Your task to perform on an android device: turn off improve location accuracy Image 0: 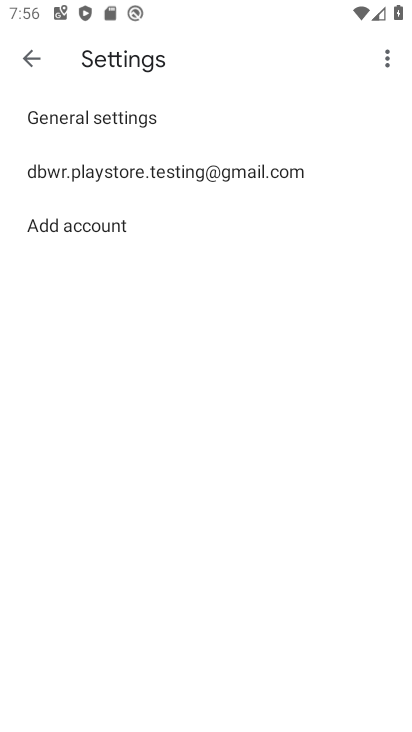
Step 0: press home button
Your task to perform on an android device: turn off improve location accuracy Image 1: 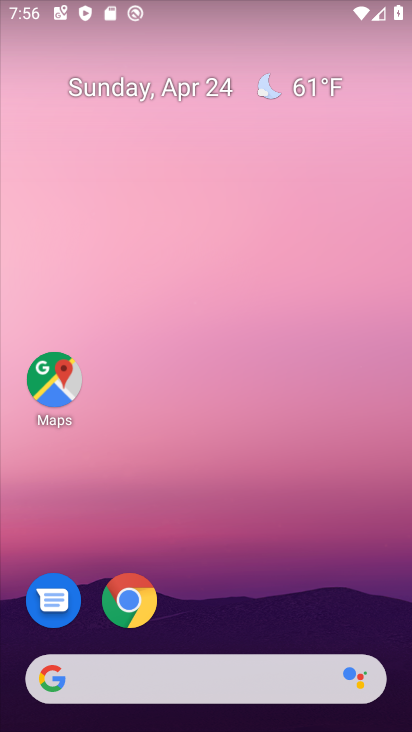
Step 1: drag from (215, 729) to (174, 177)
Your task to perform on an android device: turn off improve location accuracy Image 2: 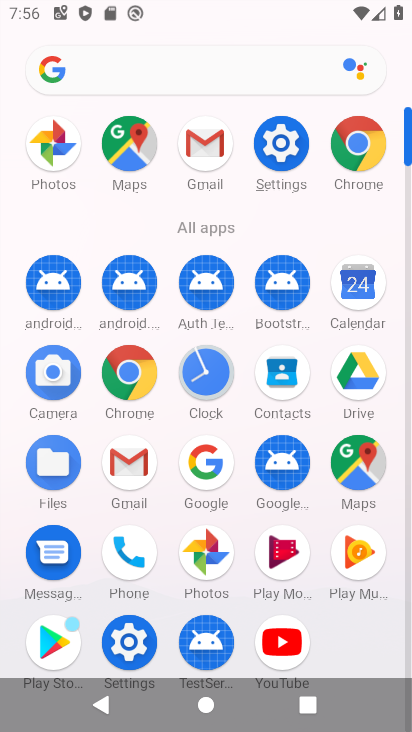
Step 2: click (283, 143)
Your task to perform on an android device: turn off improve location accuracy Image 3: 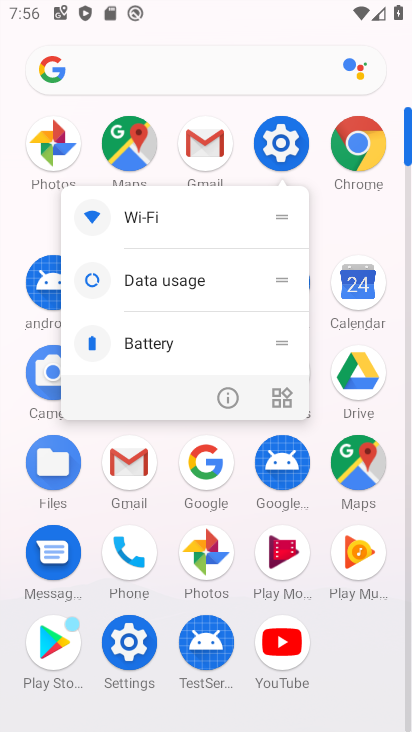
Step 3: click (275, 155)
Your task to perform on an android device: turn off improve location accuracy Image 4: 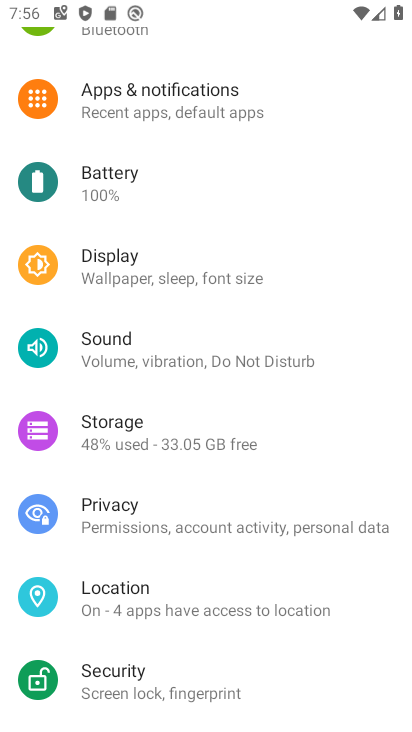
Step 4: click (112, 594)
Your task to perform on an android device: turn off improve location accuracy Image 5: 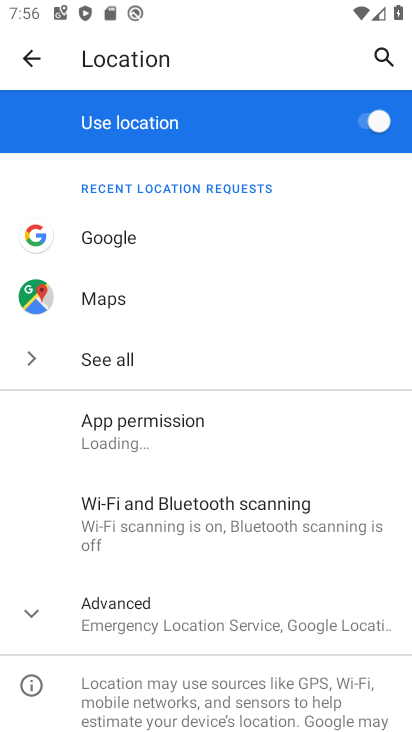
Step 5: click (204, 623)
Your task to perform on an android device: turn off improve location accuracy Image 6: 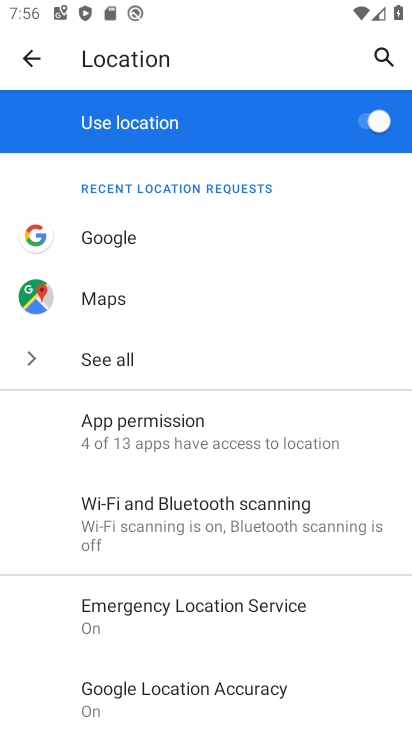
Step 6: drag from (203, 712) to (202, 489)
Your task to perform on an android device: turn off improve location accuracy Image 7: 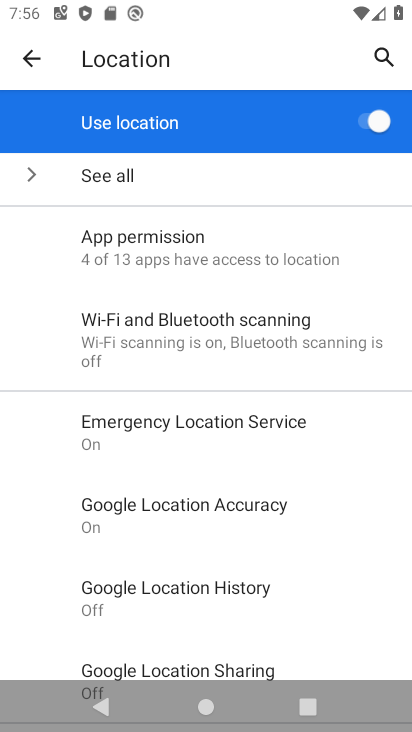
Step 7: click (158, 502)
Your task to perform on an android device: turn off improve location accuracy Image 8: 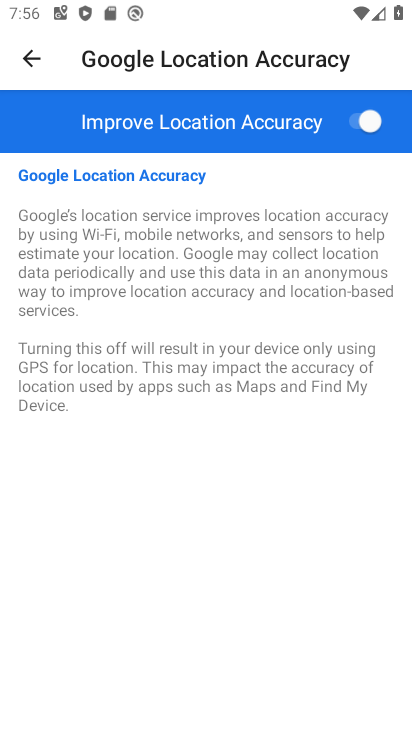
Step 8: click (351, 122)
Your task to perform on an android device: turn off improve location accuracy Image 9: 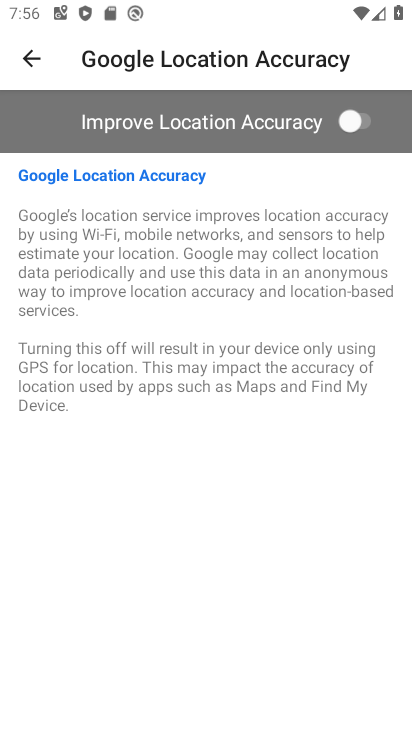
Step 9: task complete